Your task to perform on an android device: change alarm snooze length Image 0: 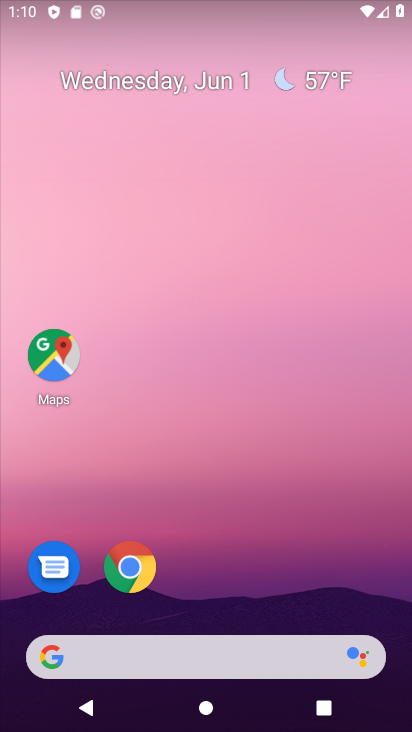
Step 0: drag from (324, 600) to (284, 154)
Your task to perform on an android device: change alarm snooze length Image 1: 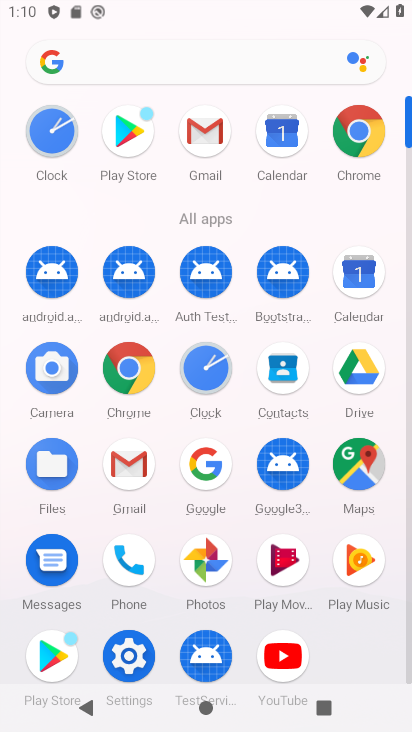
Step 1: click (197, 390)
Your task to perform on an android device: change alarm snooze length Image 2: 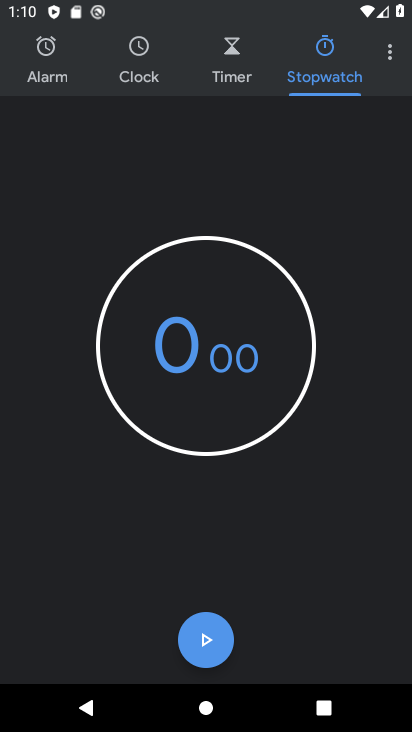
Step 2: click (389, 55)
Your task to perform on an android device: change alarm snooze length Image 3: 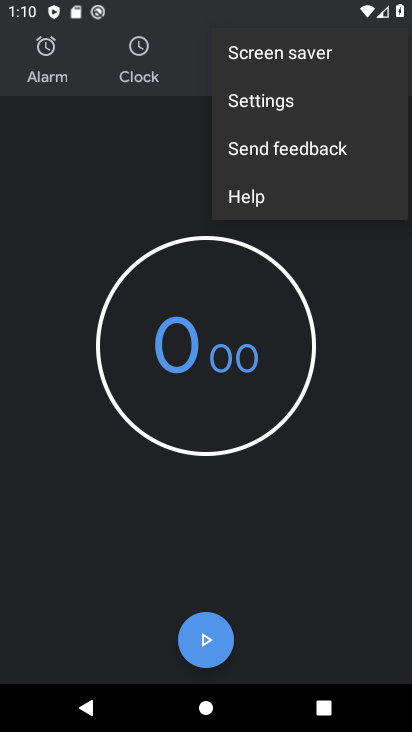
Step 3: click (252, 98)
Your task to perform on an android device: change alarm snooze length Image 4: 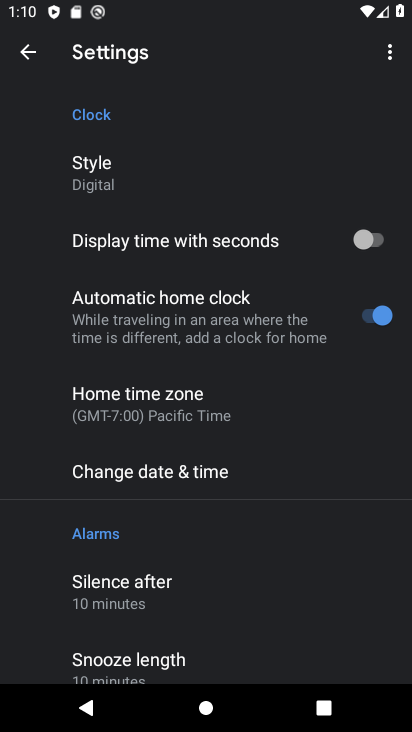
Step 4: drag from (227, 626) to (213, 535)
Your task to perform on an android device: change alarm snooze length Image 5: 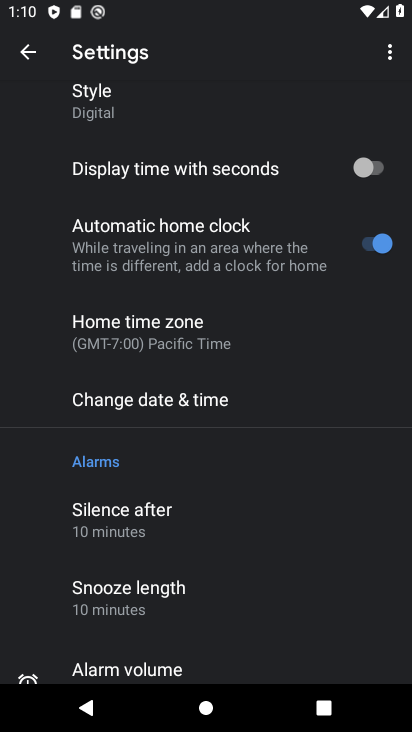
Step 5: click (168, 615)
Your task to perform on an android device: change alarm snooze length Image 6: 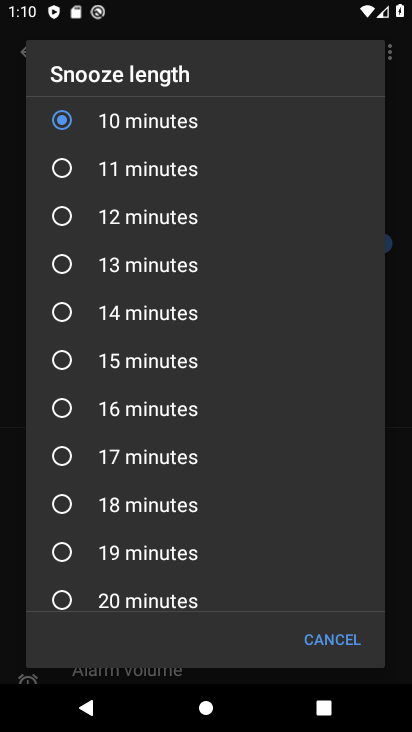
Step 6: click (59, 603)
Your task to perform on an android device: change alarm snooze length Image 7: 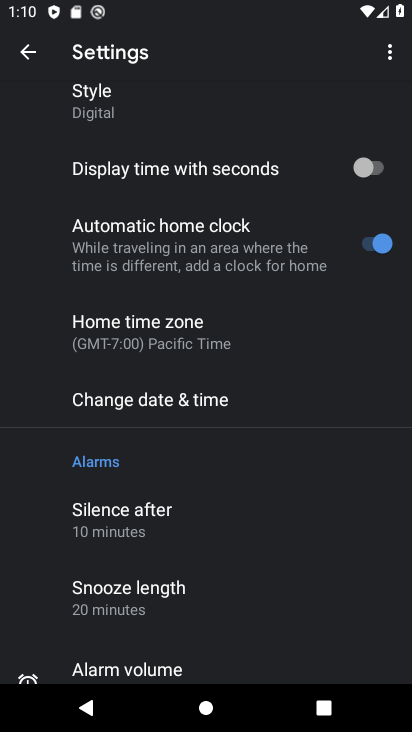
Step 7: task complete